Your task to perform on an android device: Open Maps and search for coffee Image 0: 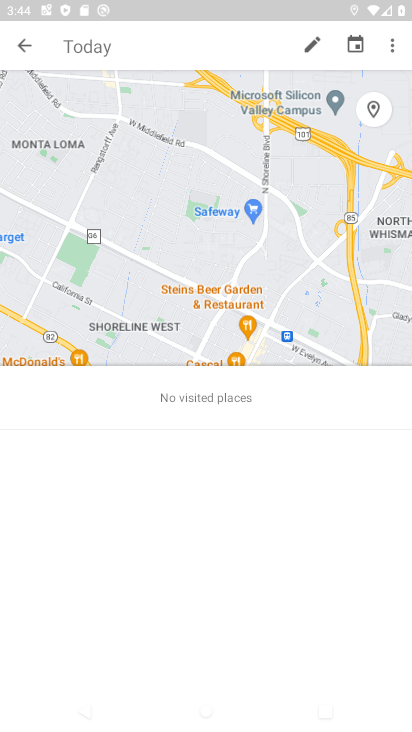
Step 0: press home button
Your task to perform on an android device: Open Maps and search for coffee Image 1: 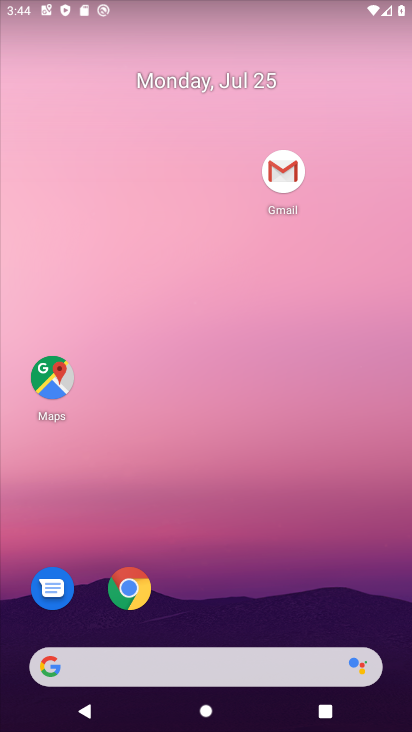
Step 1: drag from (279, 596) to (261, 153)
Your task to perform on an android device: Open Maps and search for coffee Image 2: 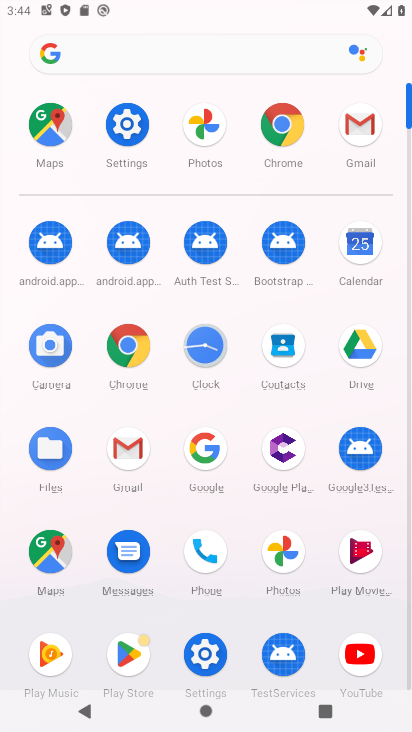
Step 2: click (55, 125)
Your task to perform on an android device: Open Maps and search for coffee Image 3: 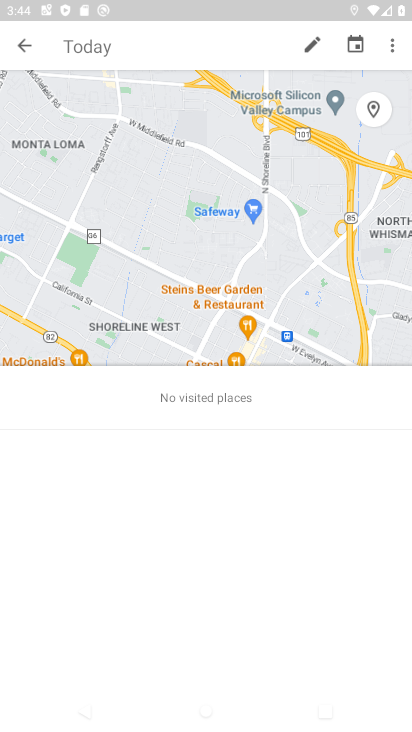
Step 3: click (14, 49)
Your task to perform on an android device: Open Maps and search for coffee Image 4: 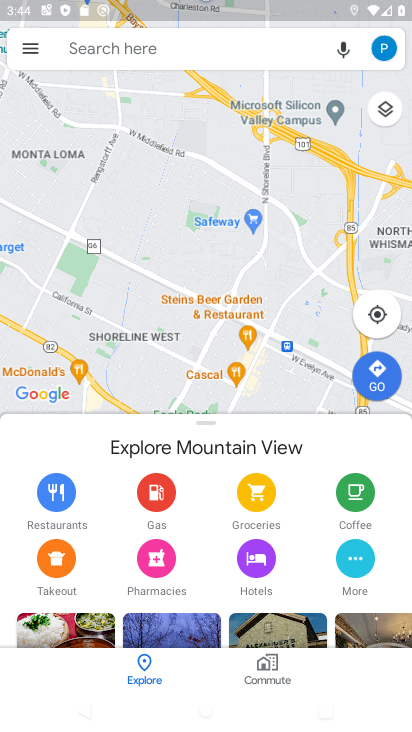
Step 4: click (127, 52)
Your task to perform on an android device: Open Maps and search for coffee Image 5: 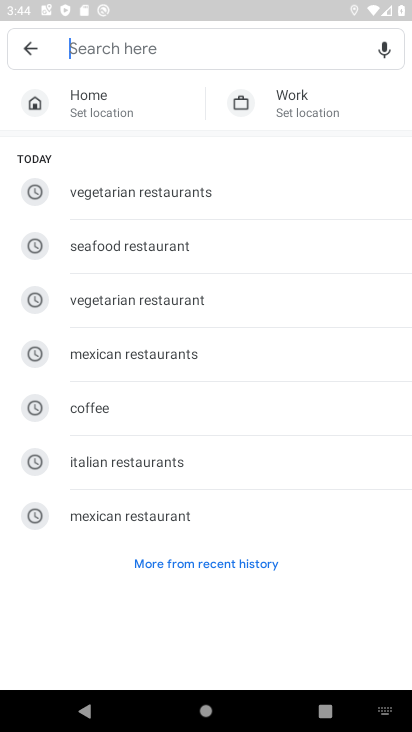
Step 5: click (140, 415)
Your task to perform on an android device: Open Maps and search for coffee Image 6: 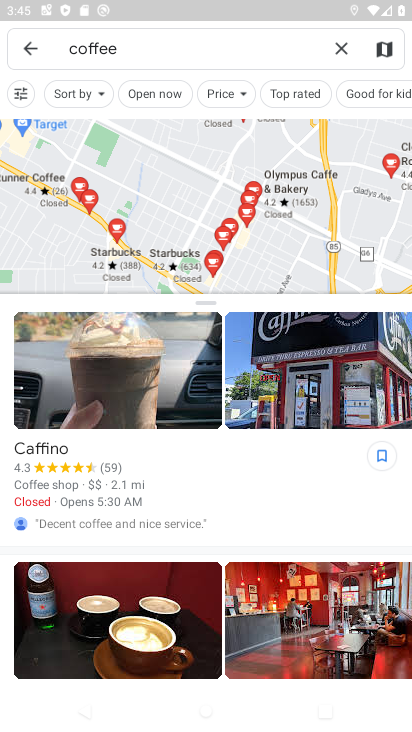
Step 6: task complete